Your task to perform on an android device: Open Amazon Image 0: 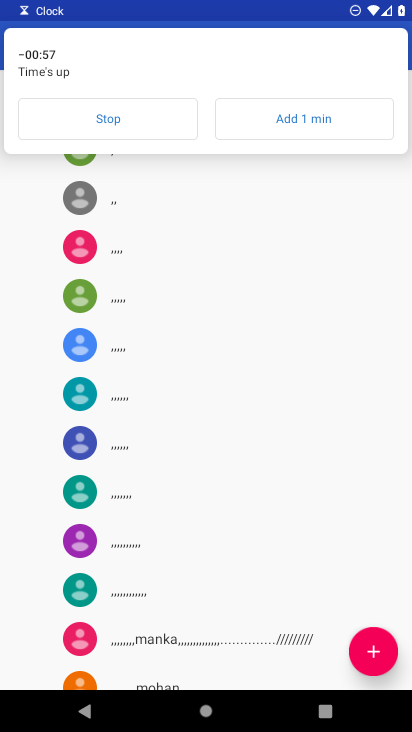
Step 0: press home button
Your task to perform on an android device: Open Amazon Image 1: 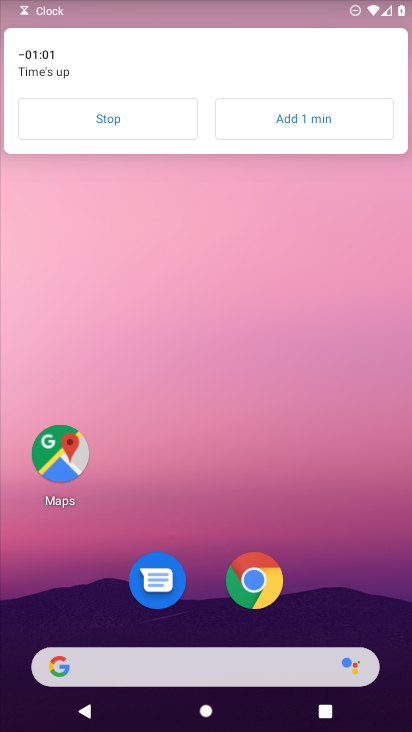
Step 1: click (160, 116)
Your task to perform on an android device: Open Amazon Image 2: 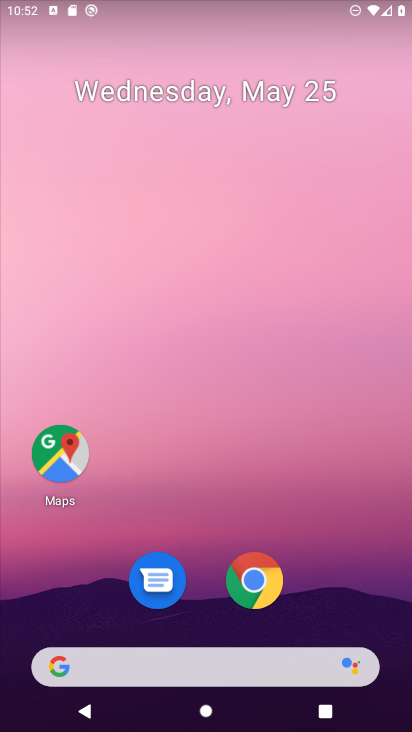
Step 2: click (247, 587)
Your task to perform on an android device: Open Amazon Image 3: 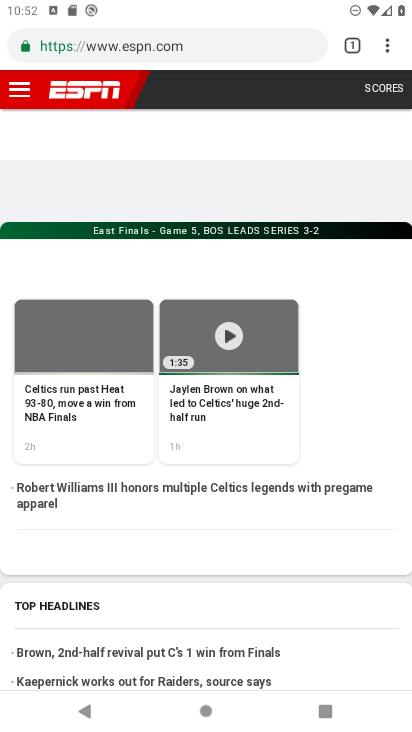
Step 3: click (354, 40)
Your task to perform on an android device: Open Amazon Image 4: 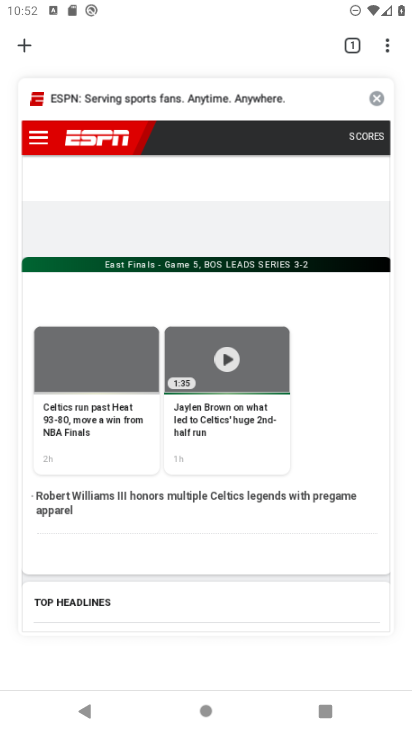
Step 4: click (376, 96)
Your task to perform on an android device: Open Amazon Image 5: 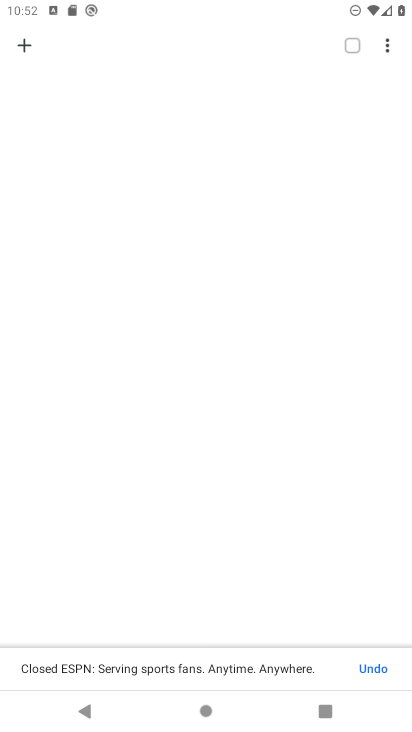
Step 5: click (23, 44)
Your task to perform on an android device: Open Amazon Image 6: 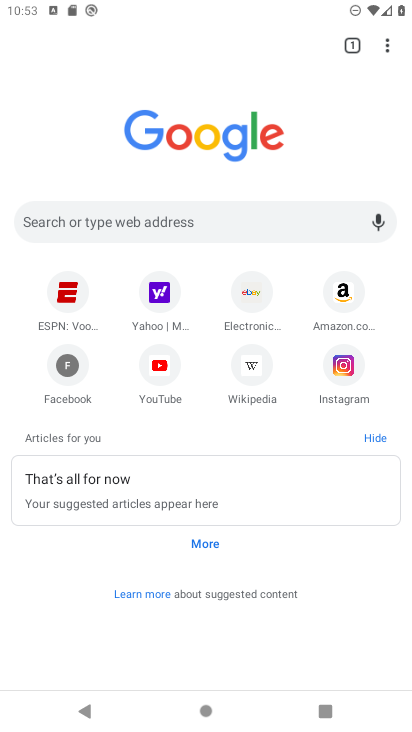
Step 6: click (334, 293)
Your task to perform on an android device: Open Amazon Image 7: 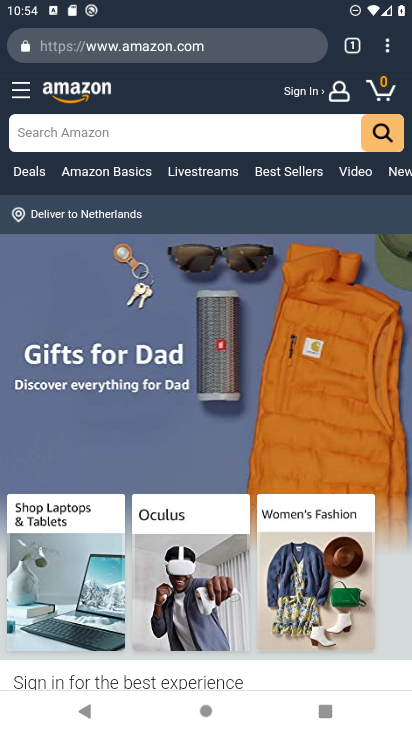
Step 7: task complete